Your task to perform on an android device: turn on translation in the chrome app Image 0: 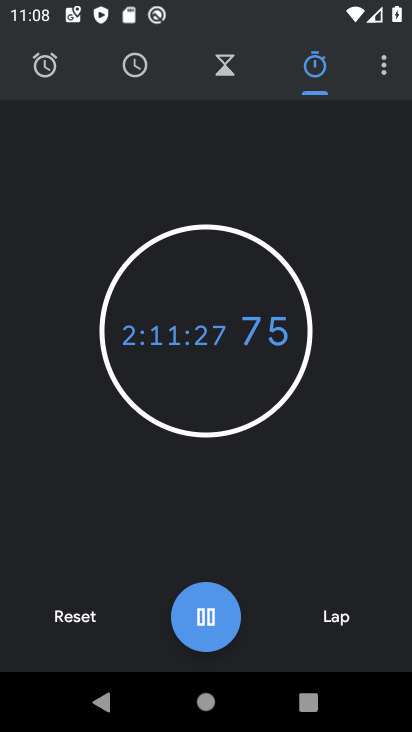
Step 0: press home button
Your task to perform on an android device: turn on translation in the chrome app Image 1: 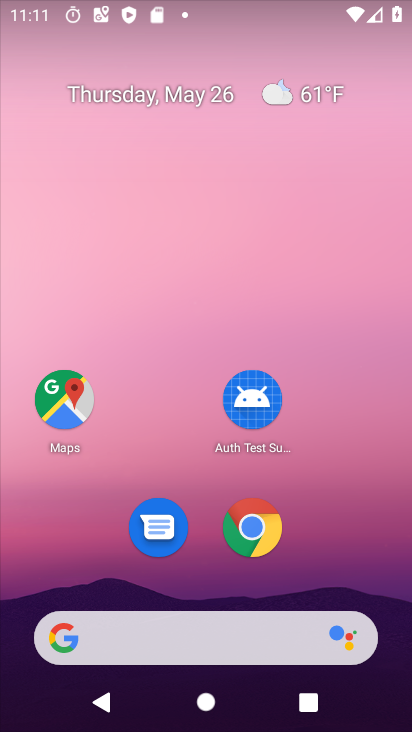
Step 1: click (284, 536)
Your task to perform on an android device: turn on translation in the chrome app Image 2: 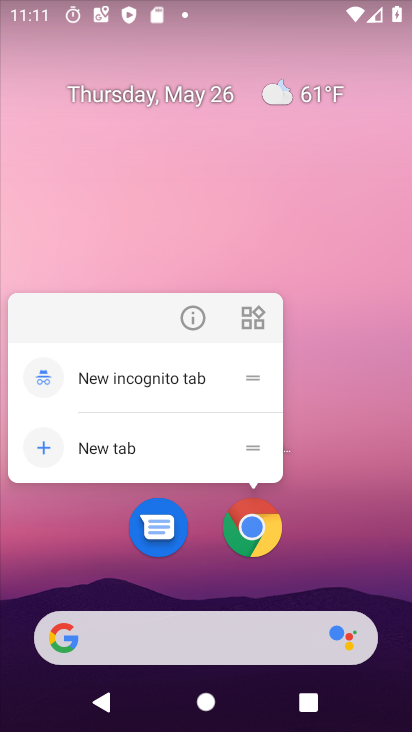
Step 2: click (271, 532)
Your task to perform on an android device: turn on translation in the chrome app Image 3: 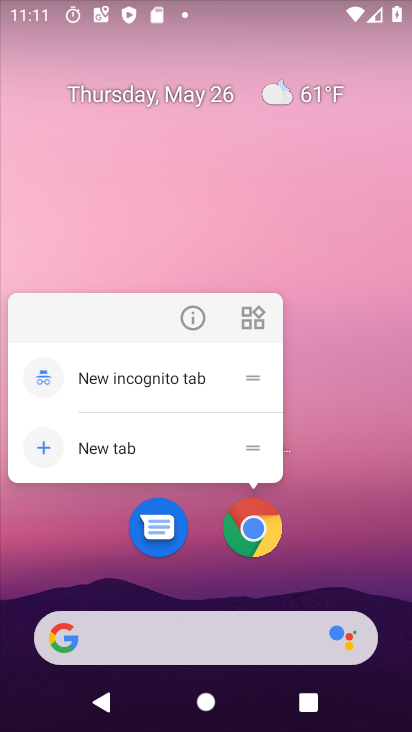
Step 3: click (270, 531)
Your task to perform on an android device: turn on translation in the chrome app Image 4: 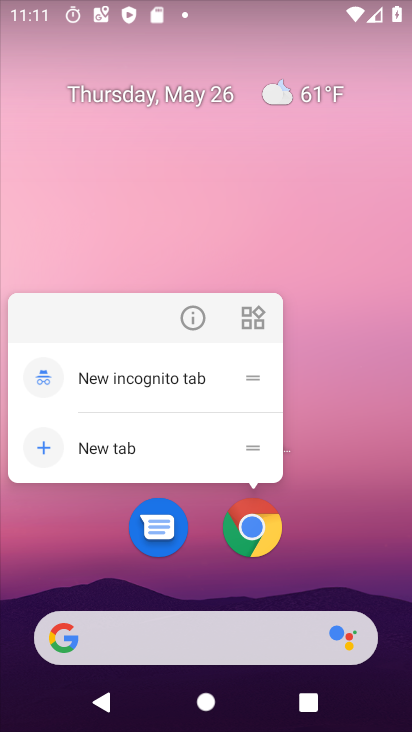
Step 4: click (272, 534)
Your task to perform on an android device: turn on translation in the chrome app Image 5: 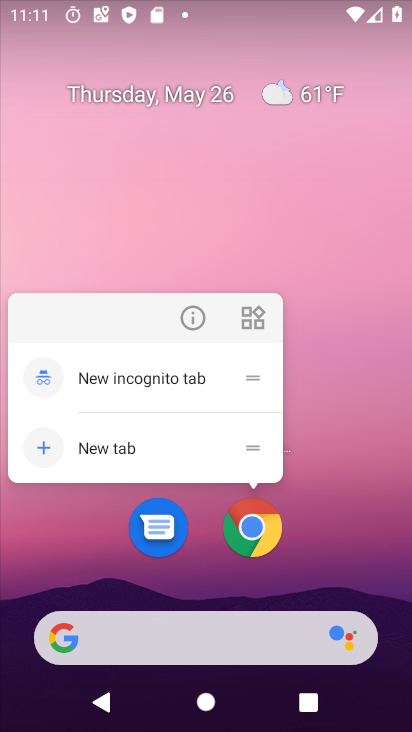
Step 5: drag from (332, 573) to (278, 142)
Your task to perform on an android device: turn on translation in the chrome app Image 6: 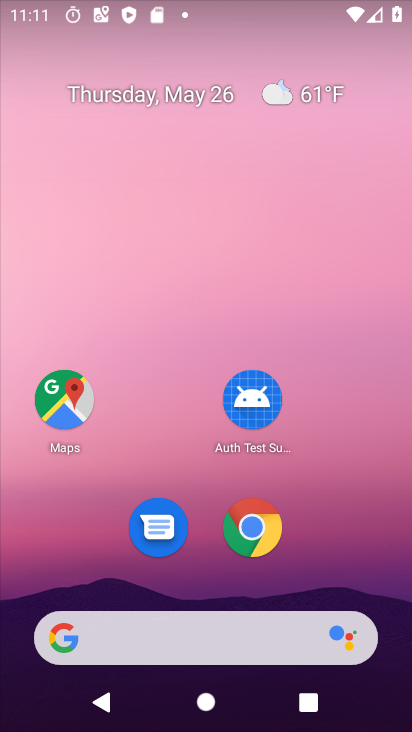
Step 6: drag from (347, 550) to (308, 85)
Your task to perform on an android device: turn on translation in the chrome app Image 7: 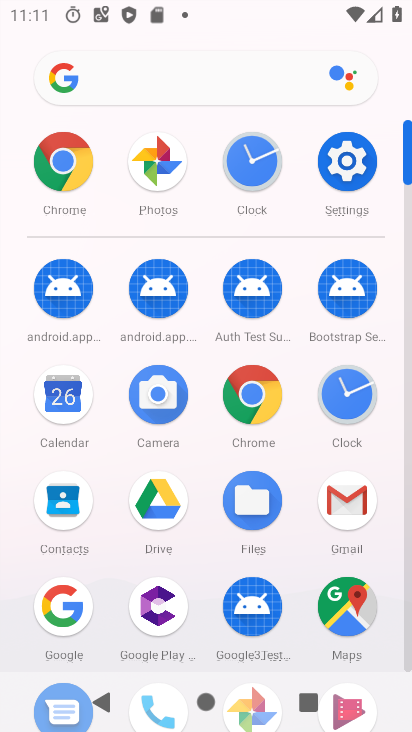
Step 7: click (50, 162)
Your task to perform on an android device: turn on translation in the chrome app Image 8: 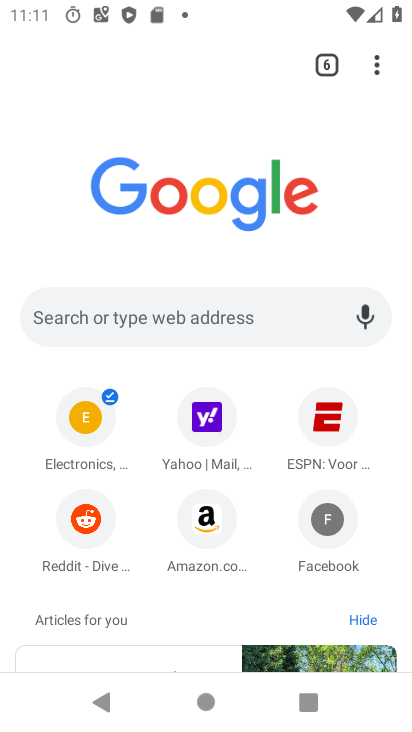
Step 8: drag from (380, 68) to (186, 531)
Your task to perform on an android device: turn on translation in the chrome app Image 9: 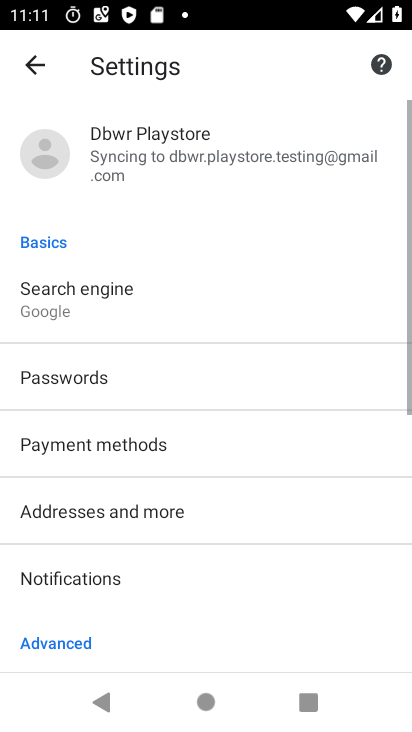
Step 9: drag from (178, 539) to (207, 144)
Your task to perform on an android device: turn on translation in the chrome app Image 10: 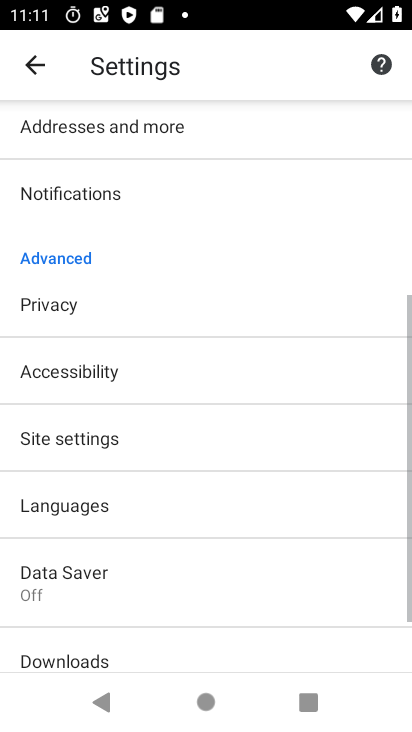
Step 10: drag from (201, 539) to (207, 154)
Your task to perform on an android device: turn on translation in the chrome app Image 11: 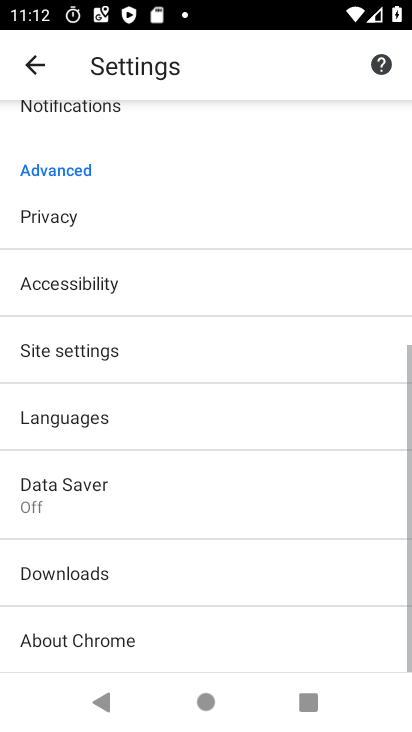
Step 11: click (115, 411)
Your task to perform on an android device: turn on translation in the chrome app Image 12: 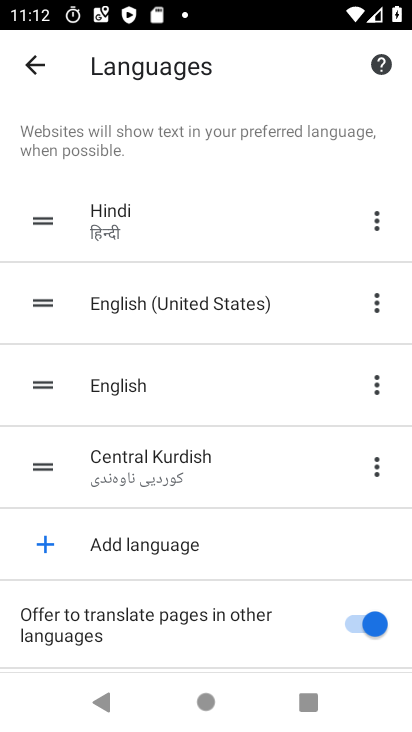
Step 12: task complete